Your task to perform on an android device: turn off location Image 0: 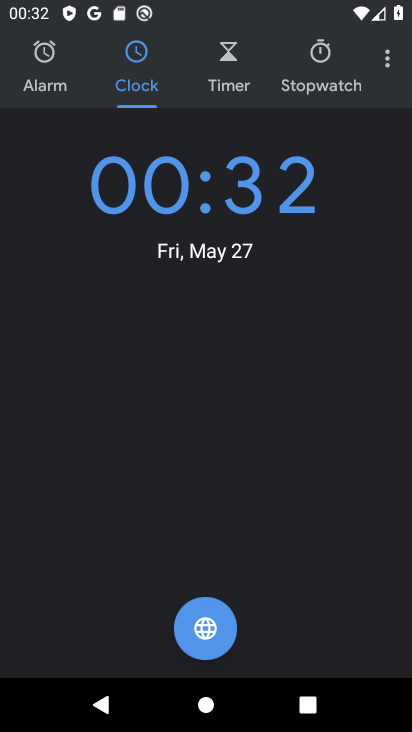
Step 0: press home button
Your task to perform on an android device: turn off location Image 1: 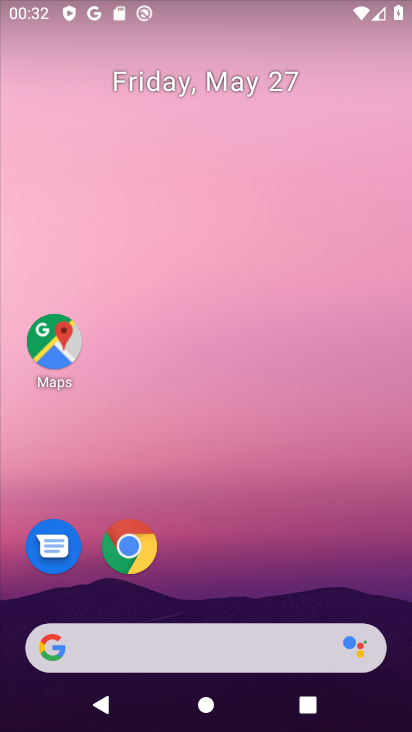
Step 1: drag from (342, 577) to (278, 51)
Your task to perform on an android device: turn off location Image 2: 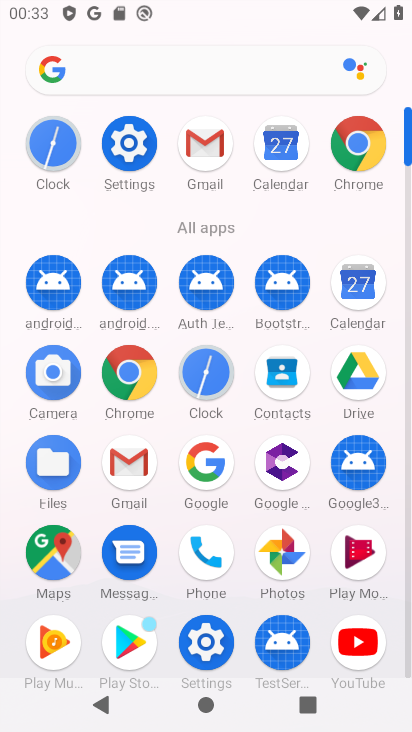
Step 2: click (206, 637)
Your task to perform on an android device: turn off location Image 3: 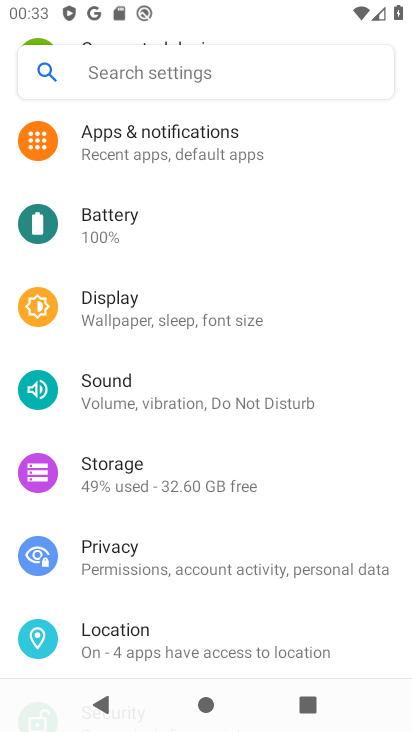
Step 3: drag from (295, 614) to (304, 449)
Your task to perform on an android device: turn off location Image 4: 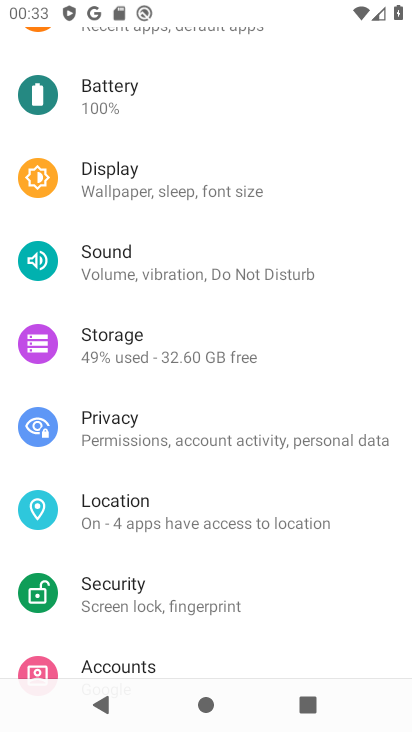
Step 4: click (228, 503)
Your task to perform on an android device: turn off location Image 5: 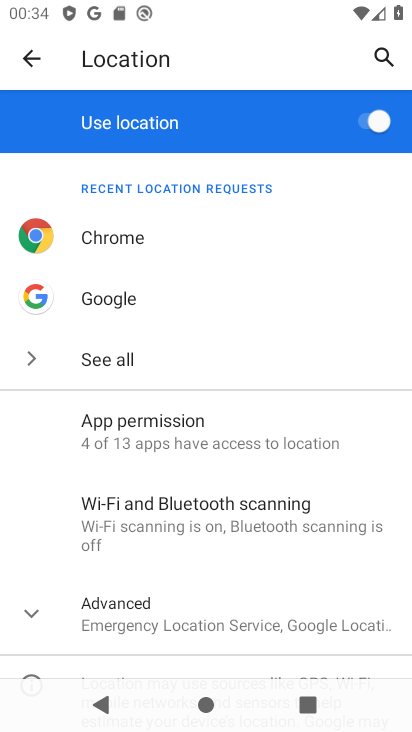
Step 5: click (371, 123)
Your task to perform on an android device: turn off location Image 6: 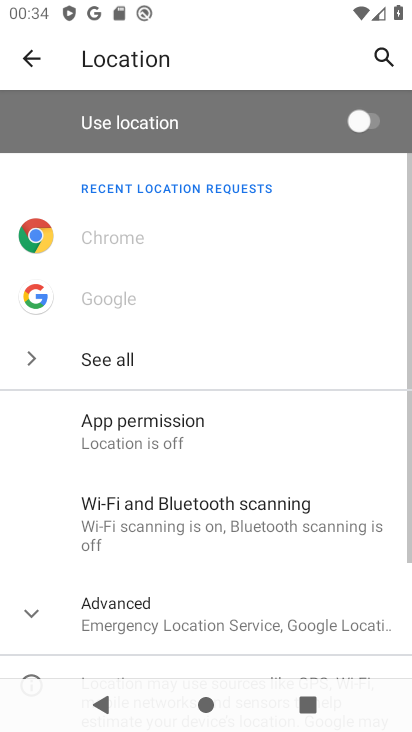
Step 6: task complete